Your task to perform on an android device: Go to calendar. Show me events next week Image 0: 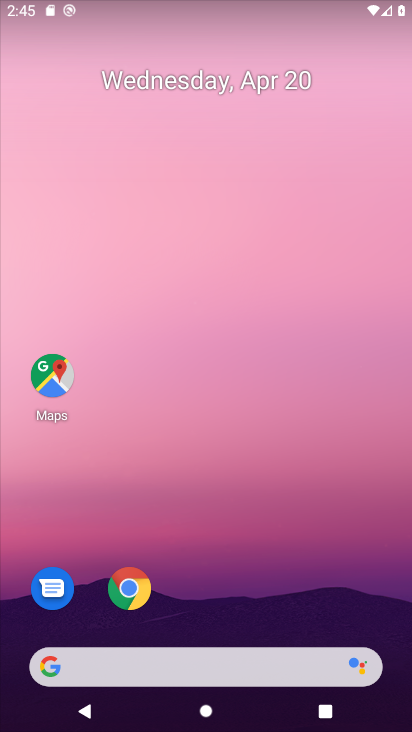
Step 0: drag from (347, 600) to (345, 93)
Your task to perform on an android device: Go to calendar. Show me events next week Image 1: 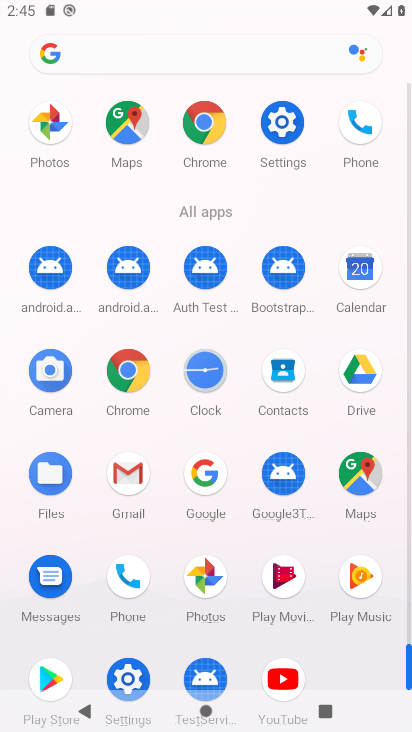
Step 1: click (356, 271)
Your task to perform on an android device: Go to calendar. Show me events next week Image 2: 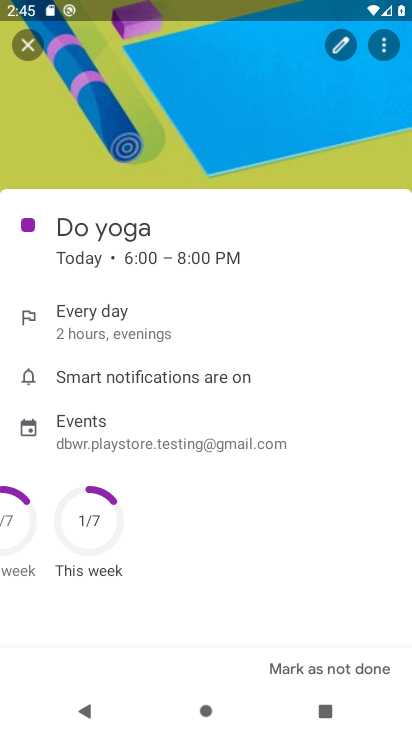
Step 2: click (32, 46)
Your task to perform on an android device: Go to calendar. Show me events next week Image 3: 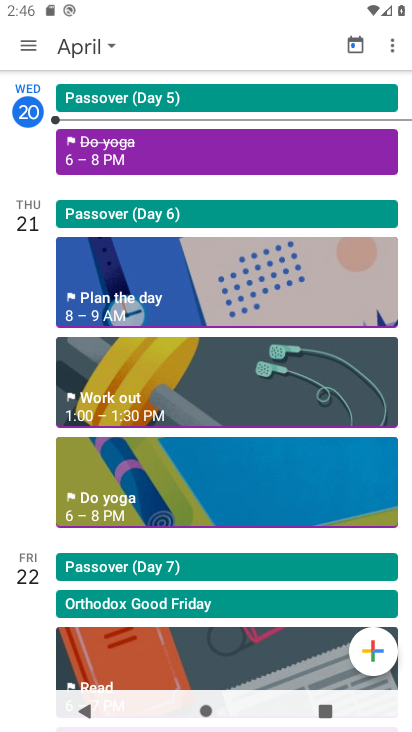
Step 3: click (110, 43)
Your task to perform on an android device: Go to calendar. Show me events next week Image 4: 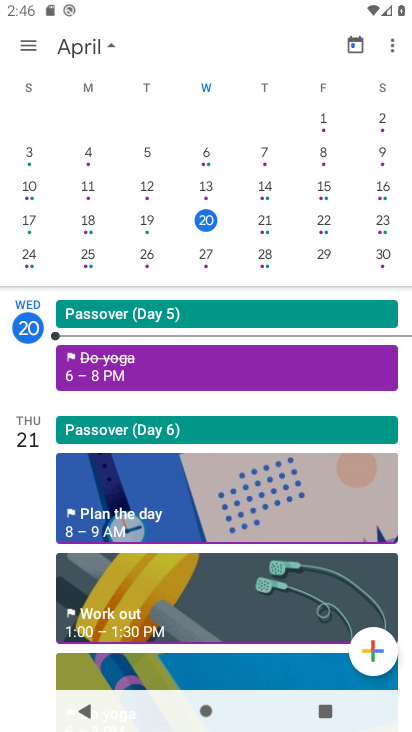
Step 4: click (87, 253)
Your task to perform on an android device: Go to calendar. Show me events next week Image 5: 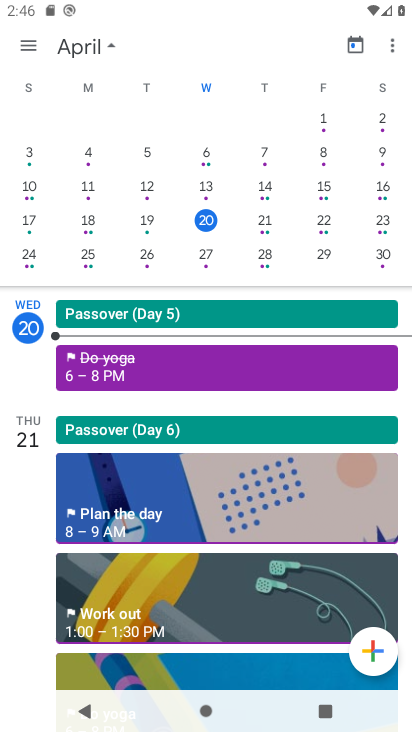
Step 5: click (86, 252)
Your task to perform on an android device: Go to calendar. Show me events next week Image 6: 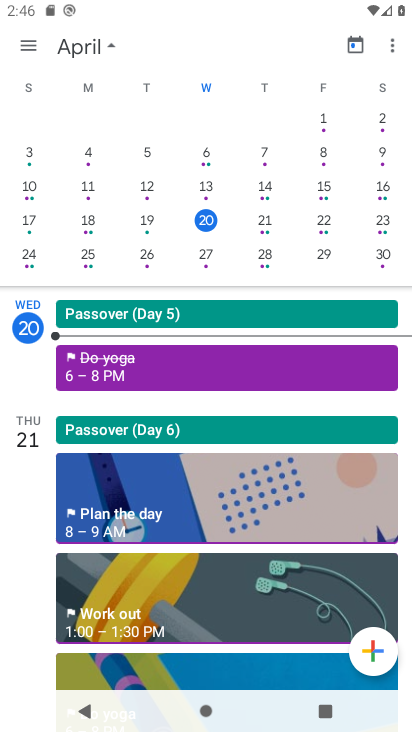
Step 6: click (93, 259)
Your task to perform on an android device: Go to calendar. Show me events next week Image 7: 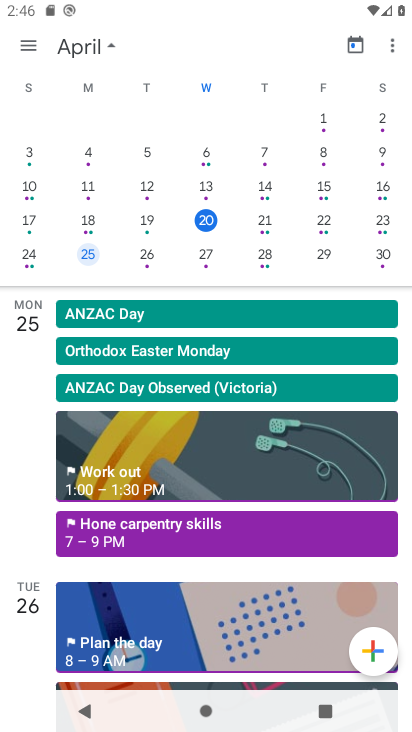
Step 7: task complete